Your task to perform on an android device: Open calendar and show me the fourth week of next month Image 0: 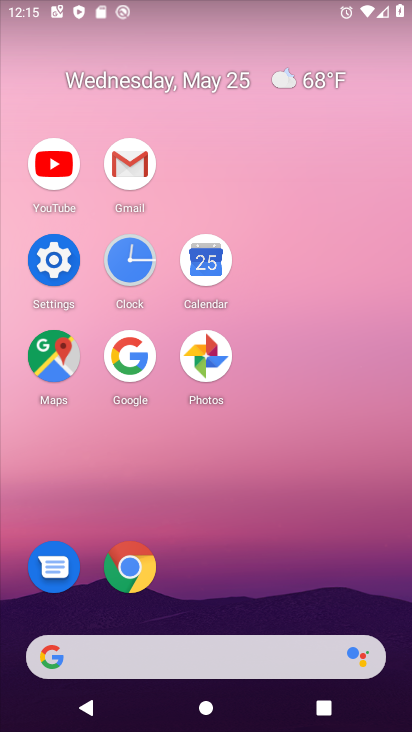
Step 0: click (206, 272)
Your task to perform on an android device: Open calendar and show me the fourth week of next month Image 1: 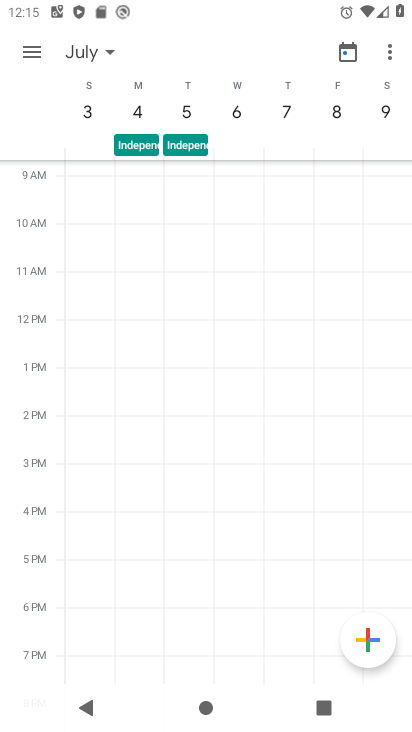
Step 1: task complete